Your task to perform on an android device: turn pop-ups on in chrome Image 0: 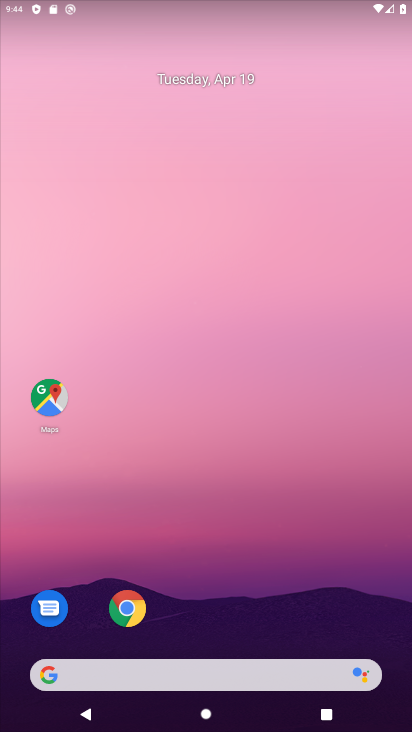
Step 0: click (132, 610)
Your task to perform on an android device: turn pop-ups on in chrome Image 1: 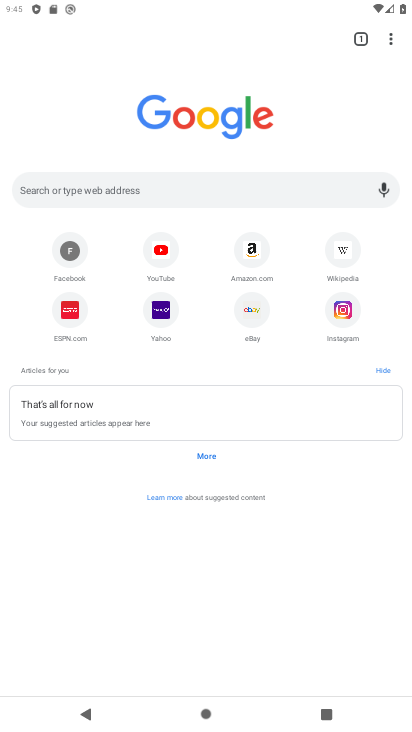
Step 1: click (390, 38)
Your task to perform on an android device: turn pop-ups on in chrome Image 2: 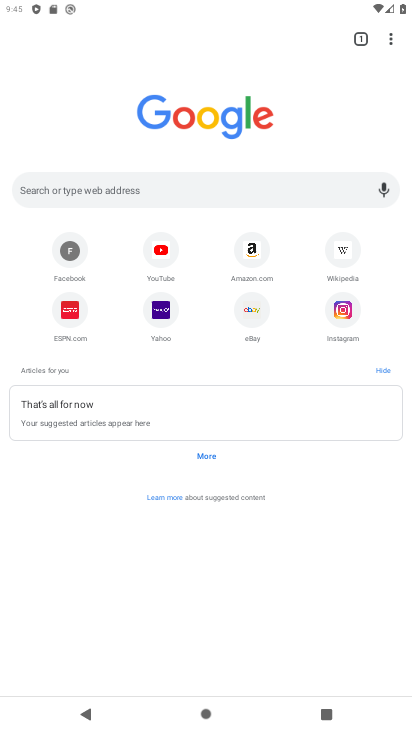
Step 2: click (388, 33)
Your task to perform on an android device: turn pop-ups on in chrome Image 3: 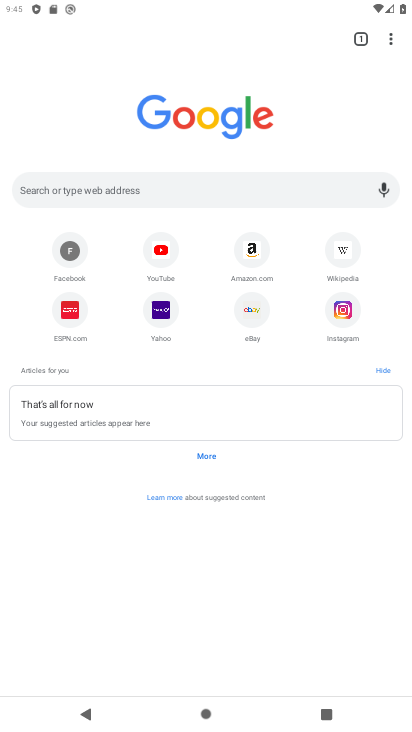
Step 3: click (388, 33)
Your task to perform on an android device: turn pop-ups on in chrome Image 4: 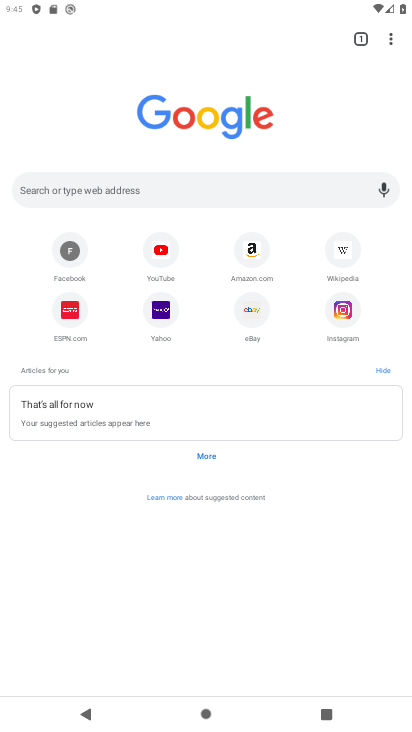
Step 4: click (390, 36)
Your task to perform on an android device: turn pop-ups on in chrome Image 5: 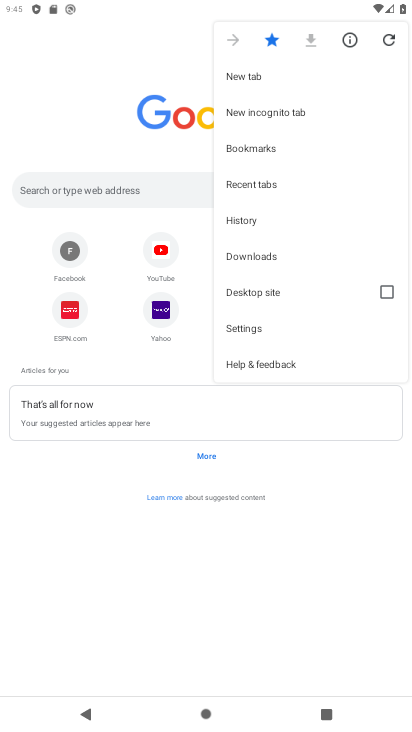
Step 5: click (238, 323)
Your task to perform on an android device: turn pop-ups on in chrome Image 6: 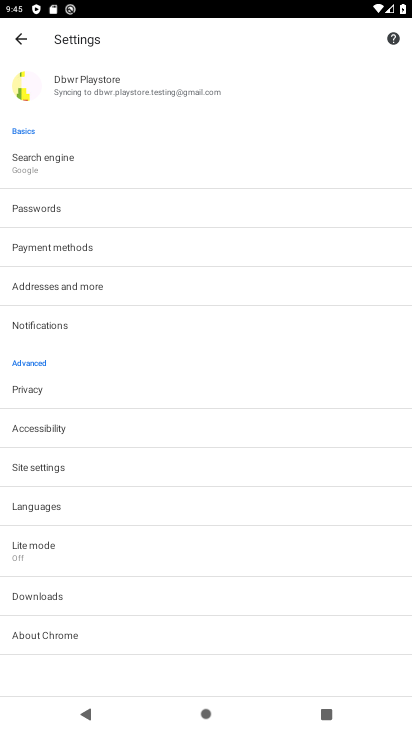
Step 6: click (49, 468)
Your task to perform on an android device: turn pop-ups on in chrome Image 7: 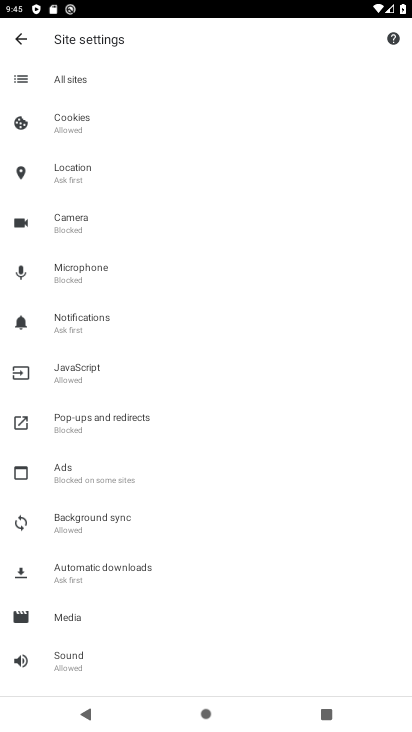
Step 7: click (73, 417)
Your task to perform on an android device: turn pop-ups on in chrome Image 8: 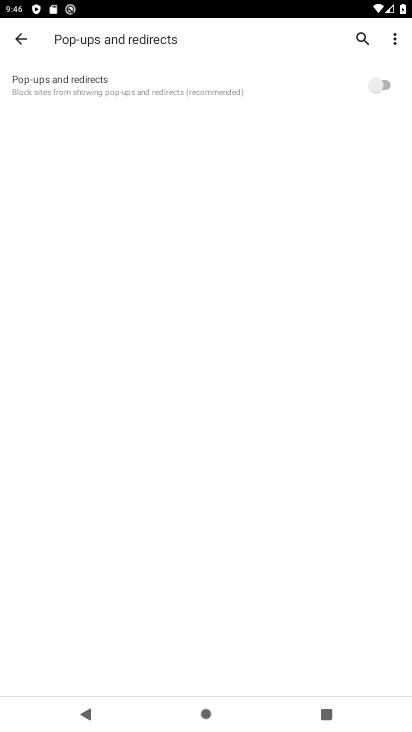
Step 8: click (386, 81)
Your task to perform on an android device: turn pop-ups on in chrome Image 9: 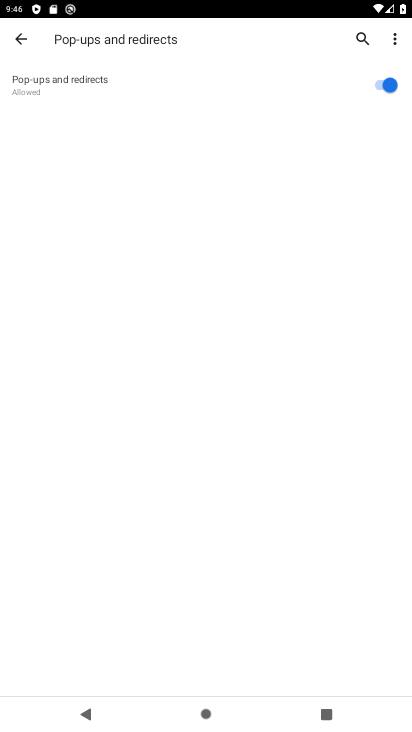
Step 9: task complete